Your task to perform on an android device: Set the phone to "Do not disturb". Image 0: 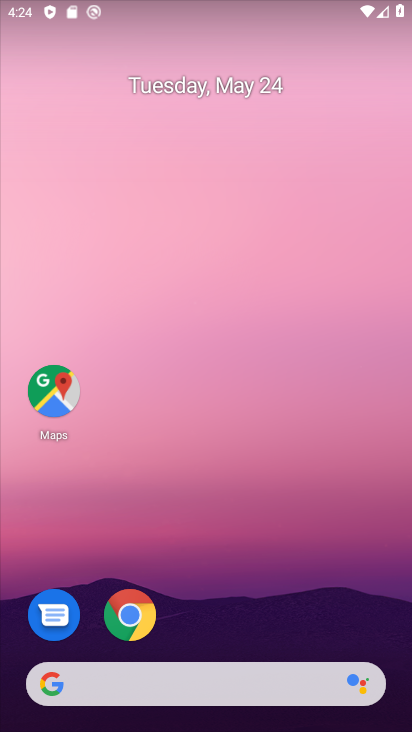
Step 0: drag from (221, 2) to (218, 524)
Your task to perform on an android device: Set the phone to "Do not disturb". Image 1: 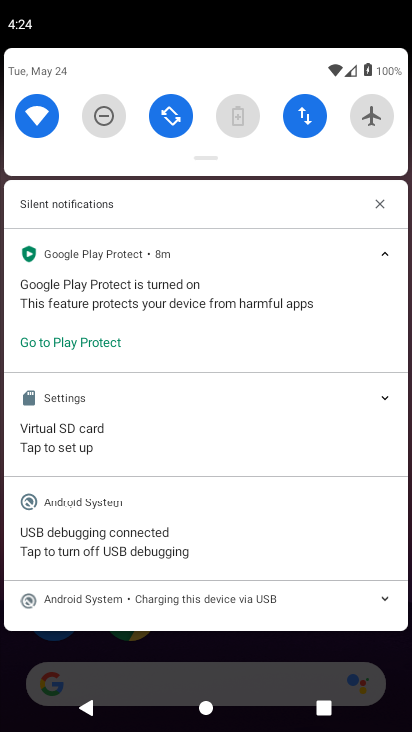
Step 1: click (98, 121)
Your task to perform on an android device: Set the phone to "Do not disturb". Image 2: 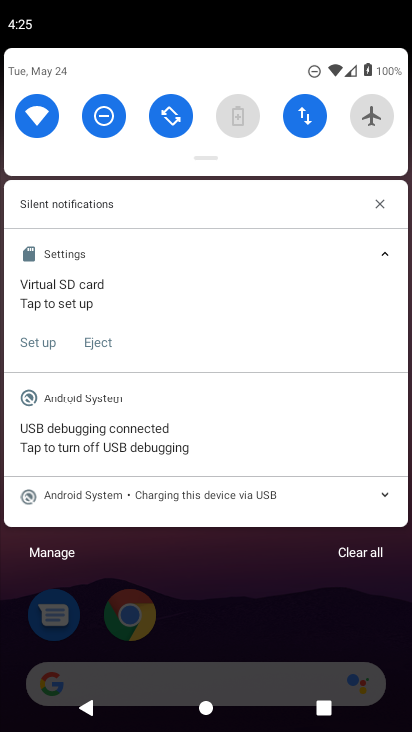
Step 2: task complete